Your task to perform on an android device: open chrome and create a bookmark for the current page Image 0: 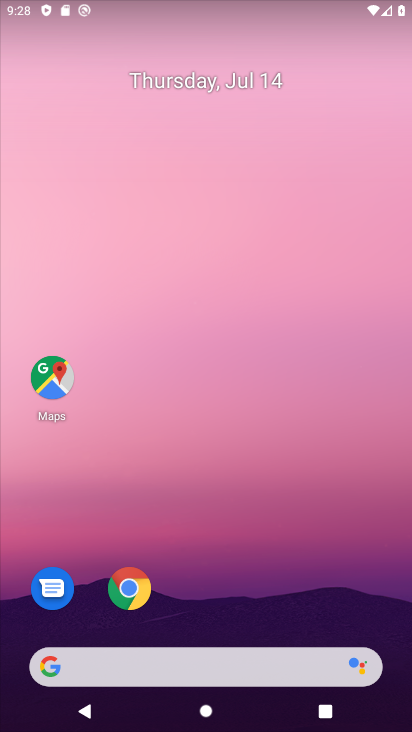
Step 0: click (141, 585)
Your task to perform on an android device: open chrome and create a bookmark for the current page Image 1: 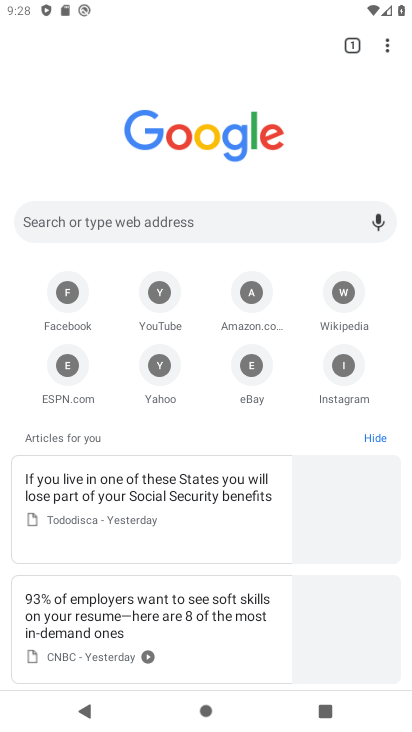
Step 1: task complete